Your task to perform on an android device: Go to Yahoo.com Image 0: 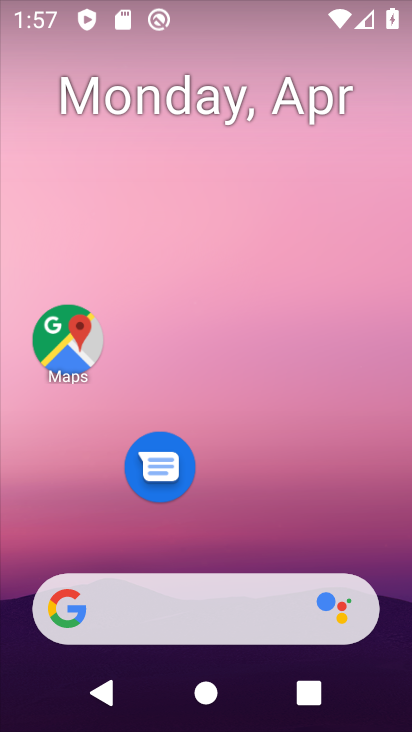
Step 0: drag from (275, 544) to (265, 8)
Your task to perform on an android device: Go to Yahoo.com Image 1: 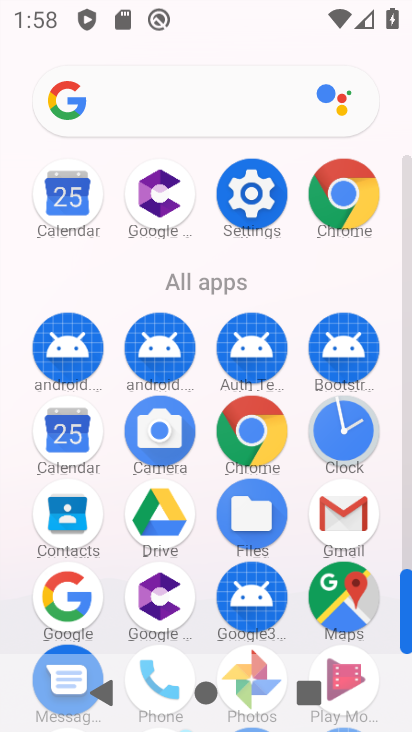
Step 1: drag from (209, 594) to (207, 340)
Your task to perform on an android device: Go to Yahoo.com Image 2: 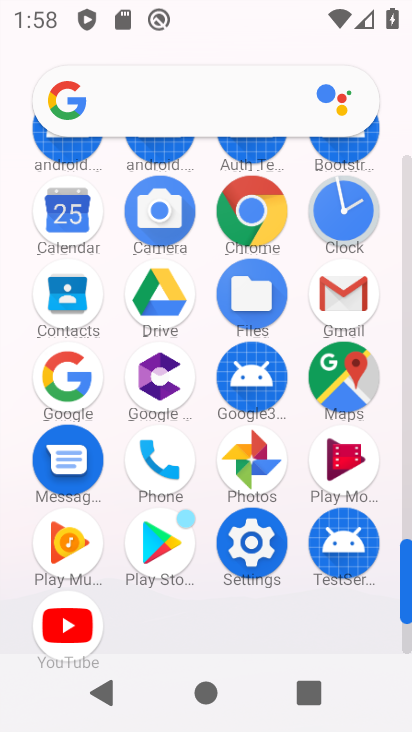
Step 2: click (256, 223)
Your task to perform on an android device: Go to Yahoo.com Image 3: 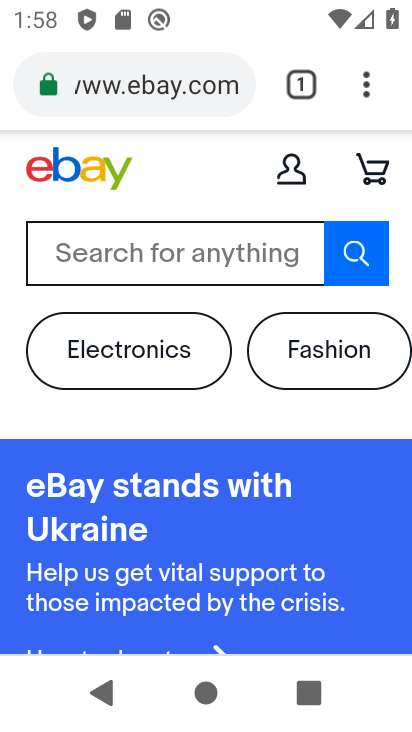
Step 3: click (109, 94)
Your task to perform on an android device: Go to Yahoo.com Image 4: 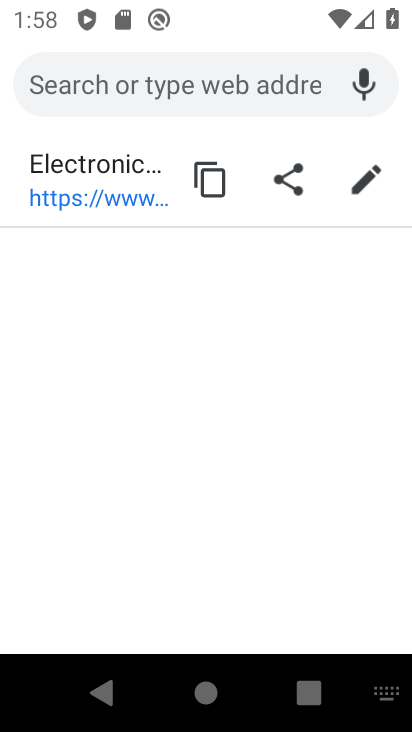
Step 4: type "yahoo.com"
Your task to perform on an android device: Go to Yahoo.com Image 5: 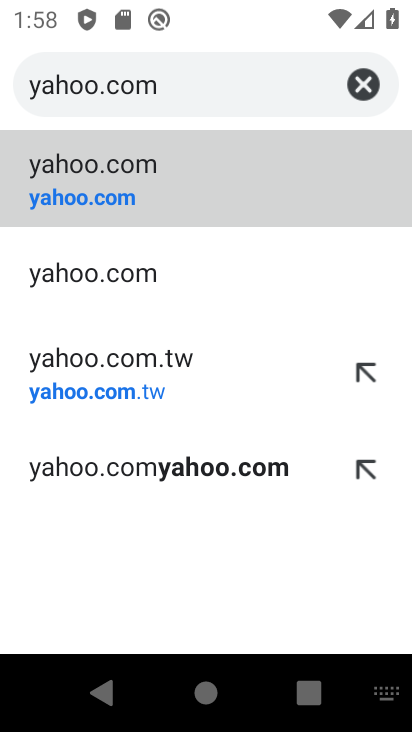
Step 5: click (71, 181)
Your task to perform on an android device: Go to Yahoo.com Image 6: 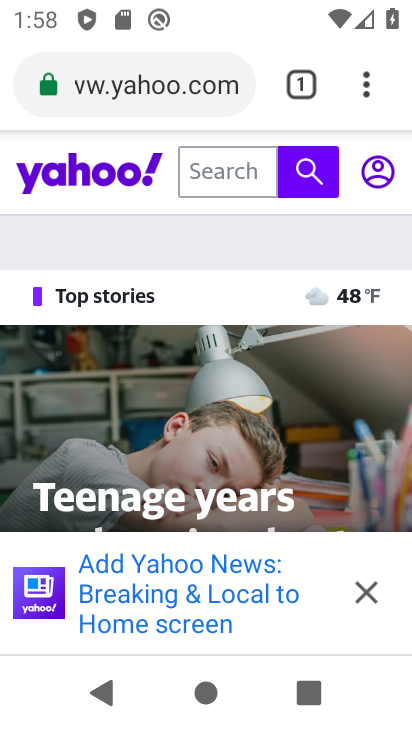
Step 6: task complete